Your task to perform on an android device: turn off airplane mode Image 0: 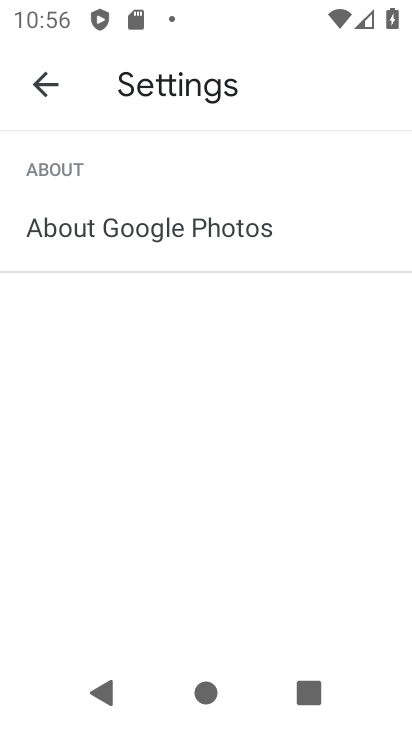
Step 0: drag from (333, 521) to (331, 151)
Your task to perform on an android device: turn off airplane mode Image 1: 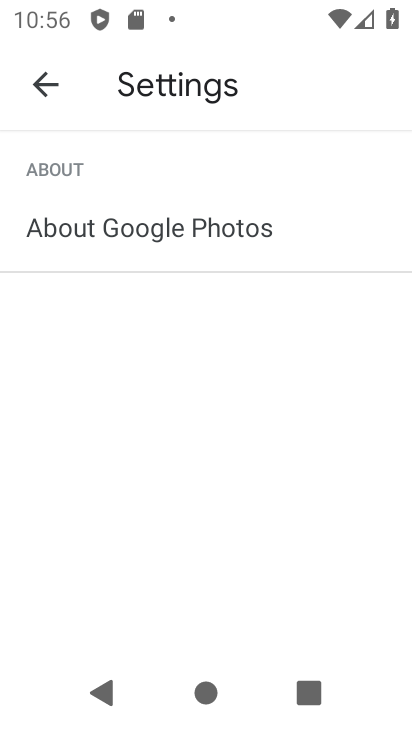
Step 1: press home button
Your task to perform on an android device: turn off airplane mode Image 2: 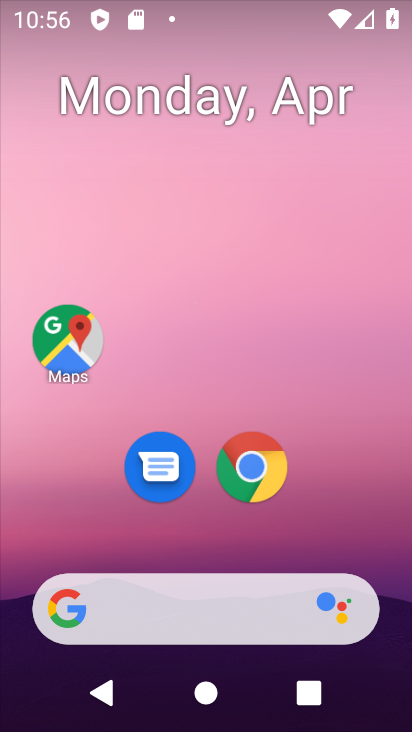
Step 2: drag from (336, 485) to (308, 131)
Your task to perform on an android device: turn off airplane mode Image 3: 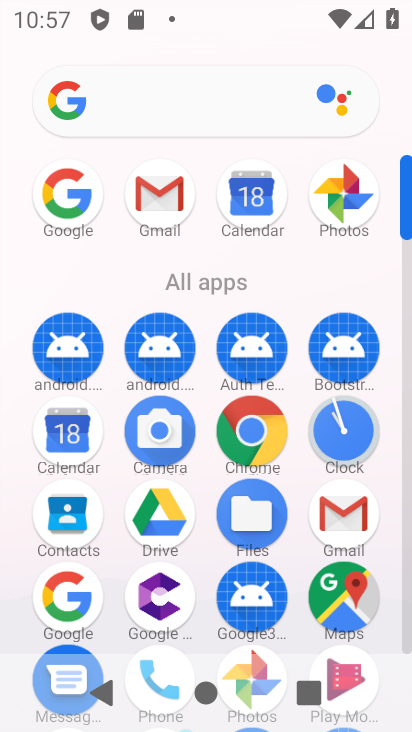
Step 3: drag from (258, 465) to (247, 133)
Your task to perform on an android device: turn off airplane mode Image 4: 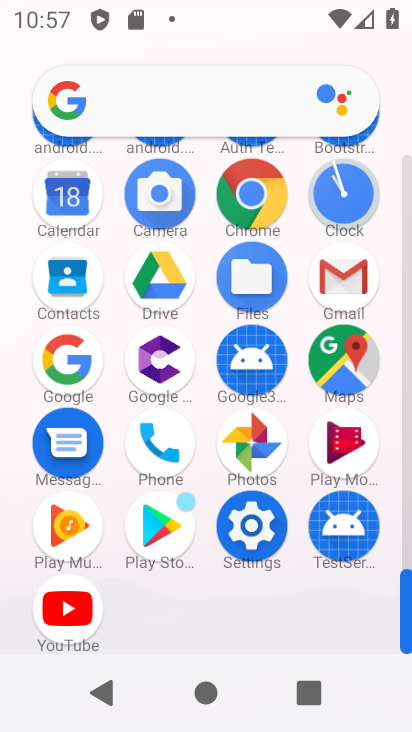
Step 4: click (270, 523)
Your task to perform on an android device: turn off airplane mode Image 5: 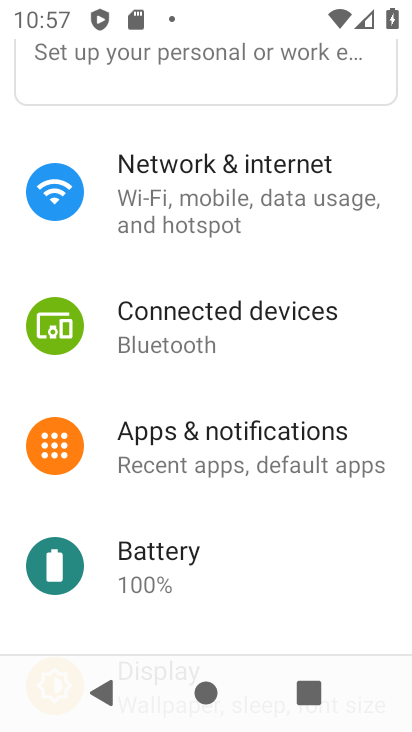
Step 5: click (247, 212)
Your task to perform on an android device: turn off airplane mode Image 6: 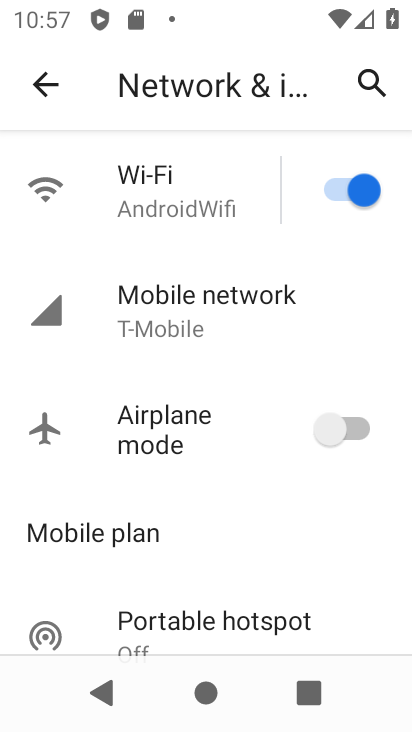
Step 6: task complete